Your task to perform on an android device: Open Wikipedia Image 0: 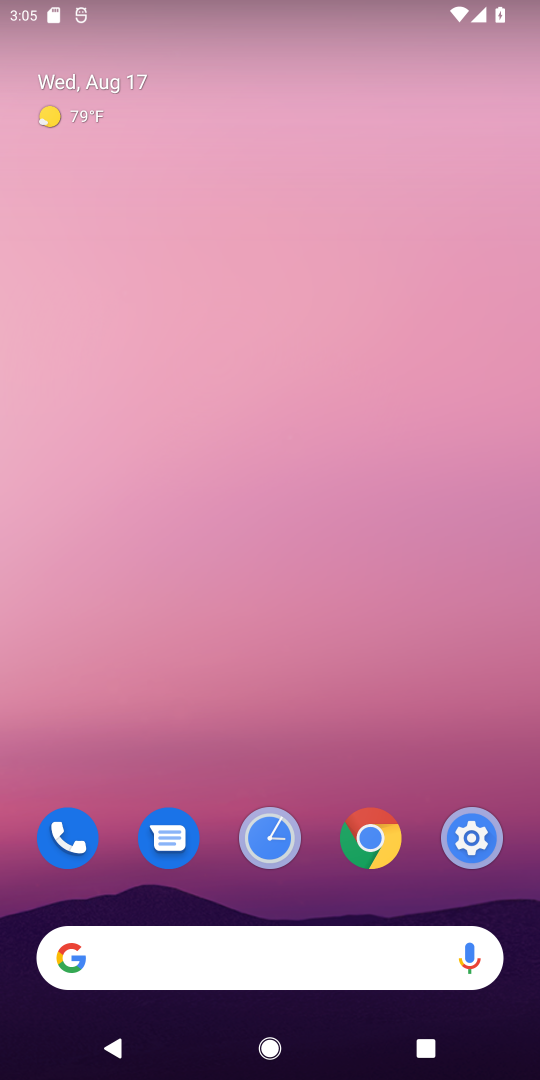
Step 0: click (363, 857)
Your task to perform on an android device: Open Wikipedia Image 1: 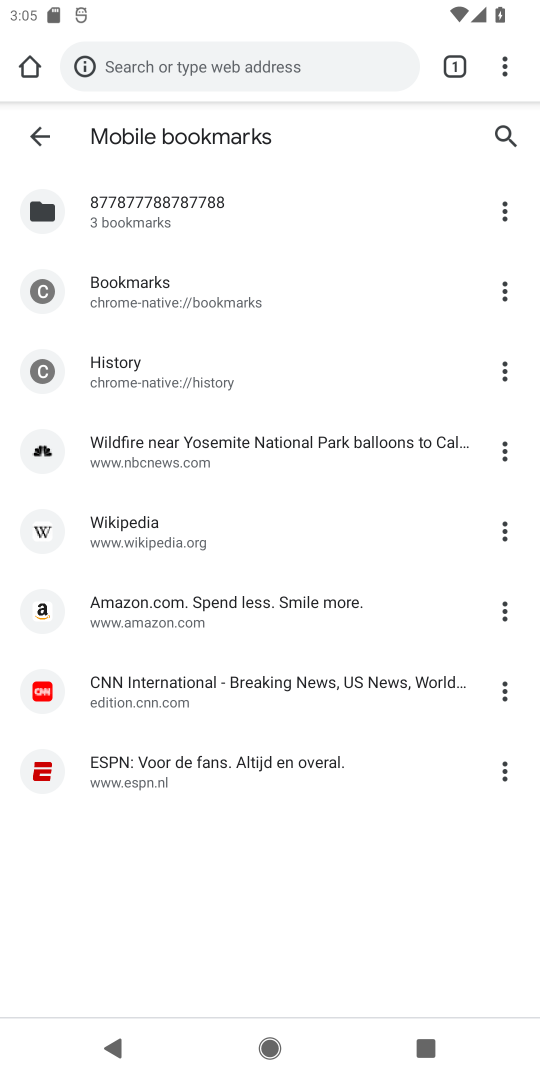
Step 1: click (34, 145)
Your task to perform on an android device: Open Wikipedia Image 2: 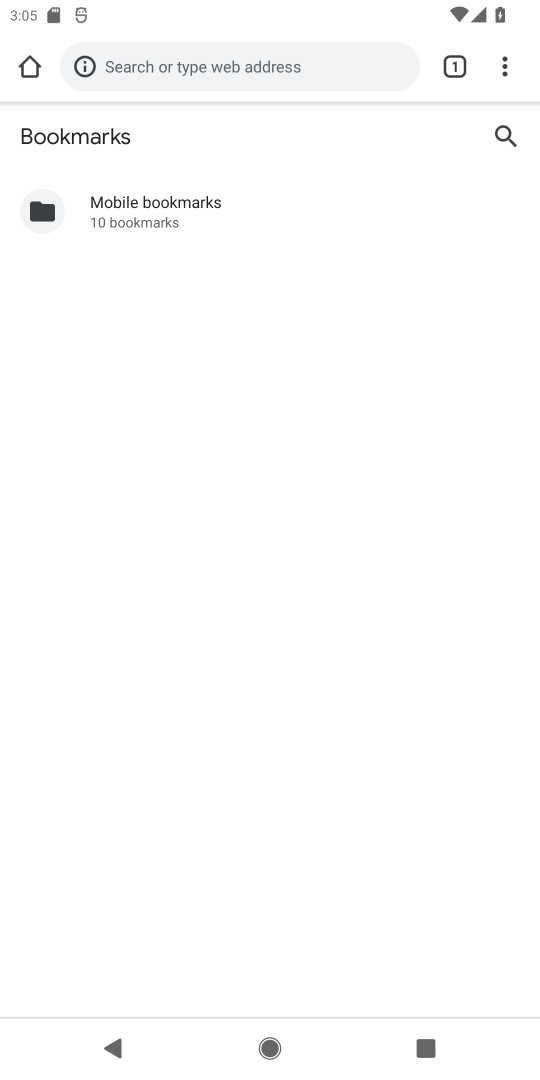
Step 2: click (444, 69)
Your task to perform on an android device: Open Wikipedia Image 3: 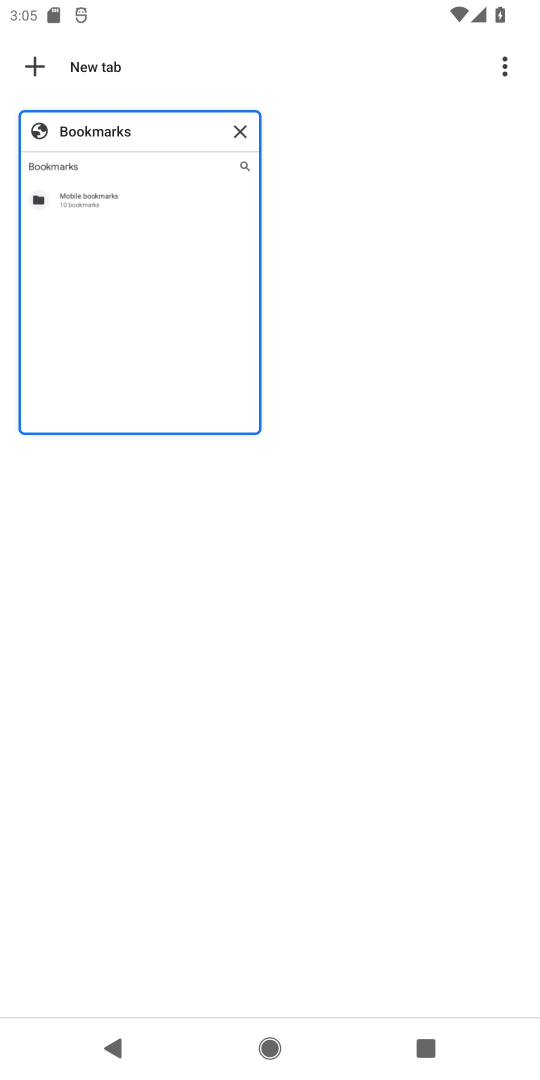
Step 3: click (30, 69)
Your task to perform on an android device: Open Wikipedia Image 4: 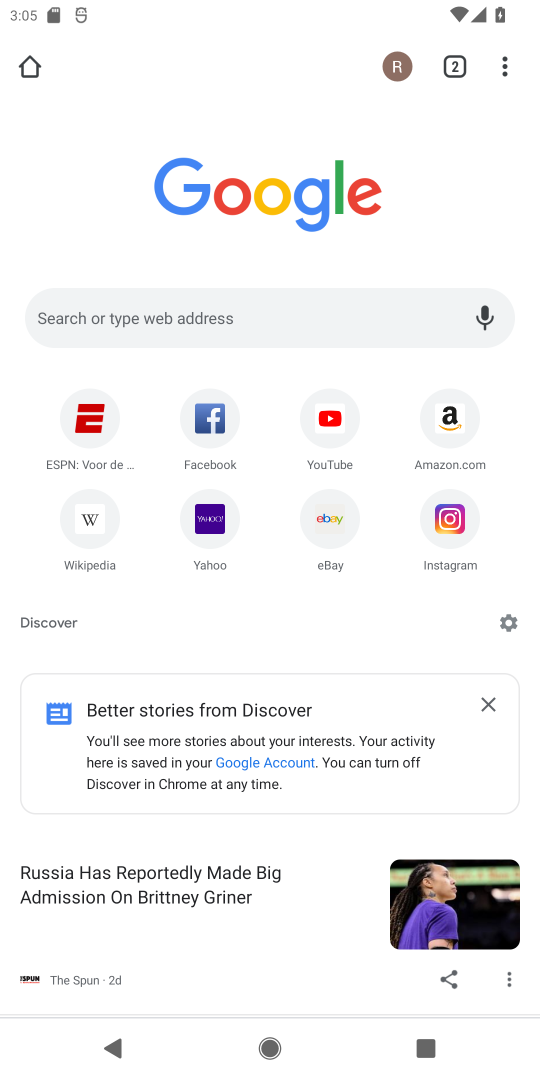
Step 4: click (83, 518)
Your task to perform on an android device: Open Wikipedia Image 5: 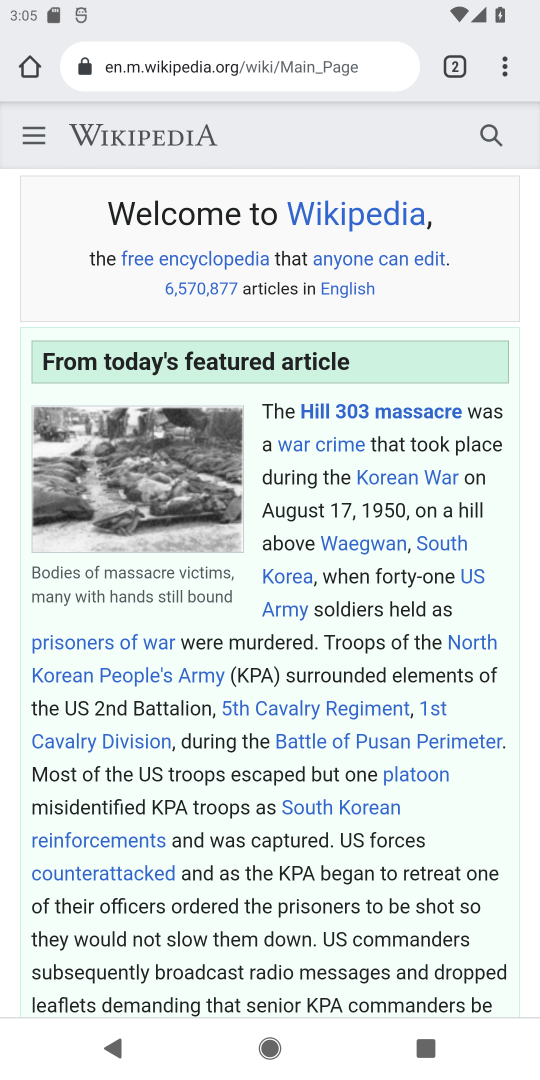
Step 5: task complete